Your task to perform on an android device: open chrome privacy settings Image 0: 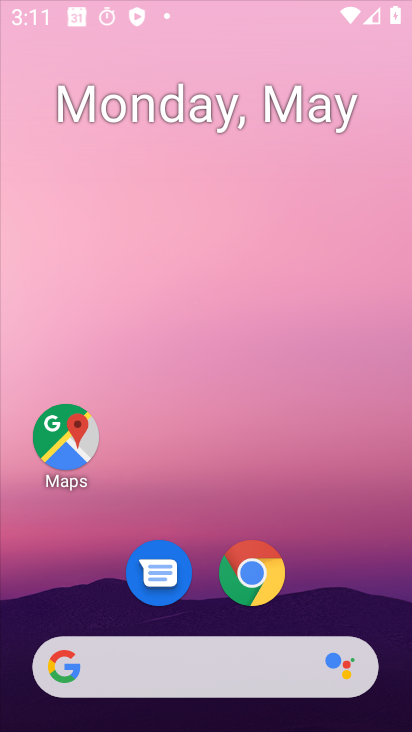
Step 0: drag from (363, 602) to (140, 128)
Your task to perform on an android device: open chrome privacy settings Image 1: 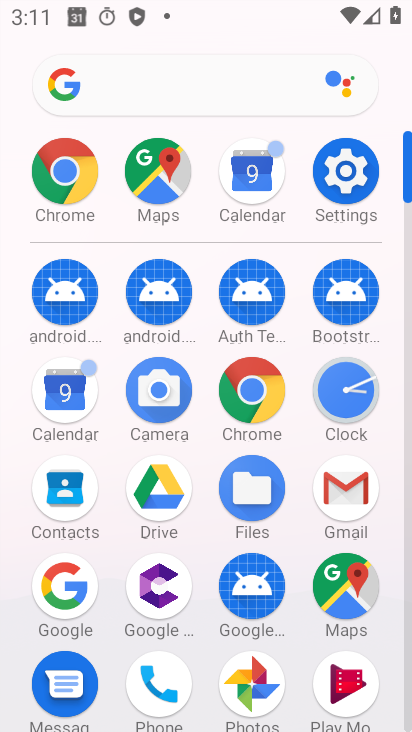
Step 1: click (72, 175)
Your task to perform on an android device: open chrome privacy settings Image 2: 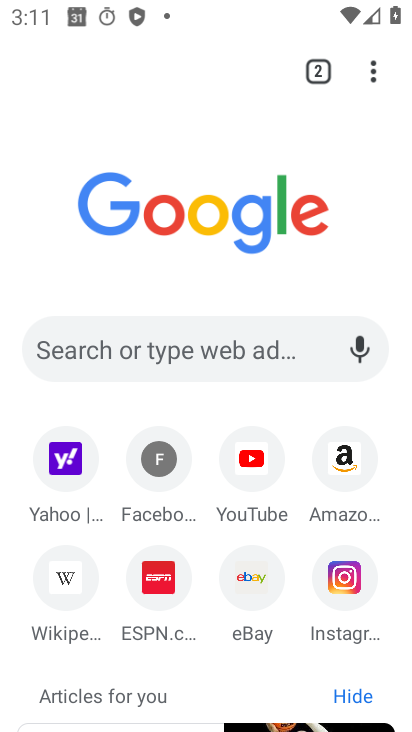
Step 2: click (373, 77)
Your task to perform on an android device: open chrome privacy settings Image 3: 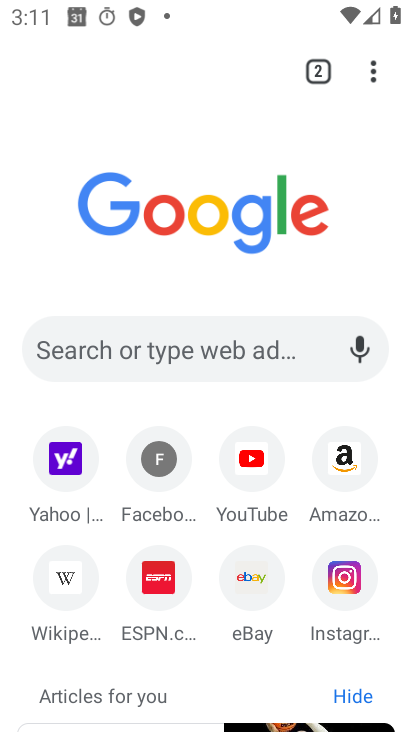
Step 3: click (371, 76)
Your task to perform on an android device: open chrome privacy settings Image 4: 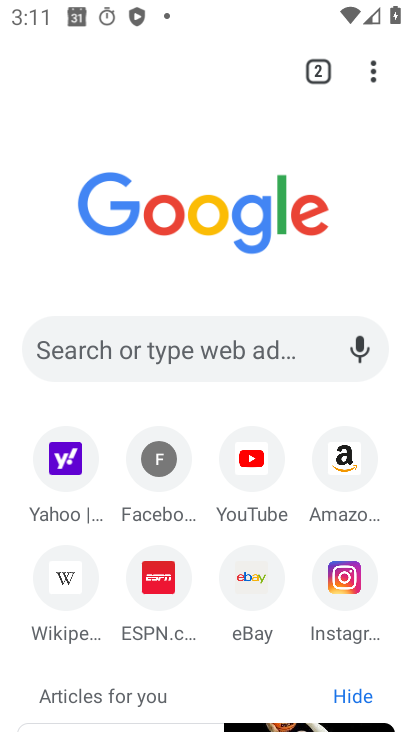
Step 4: drag from (371, 76) to (128, 606)
Your task to perform on an android device: open chrome privacy settings Image 5: 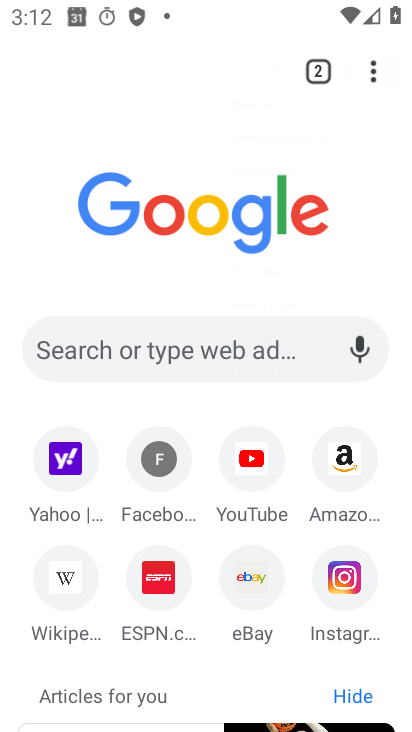
Step 5: click (122, 603)
Your task to perform on an android device: open chrome privacy settings Image 6: 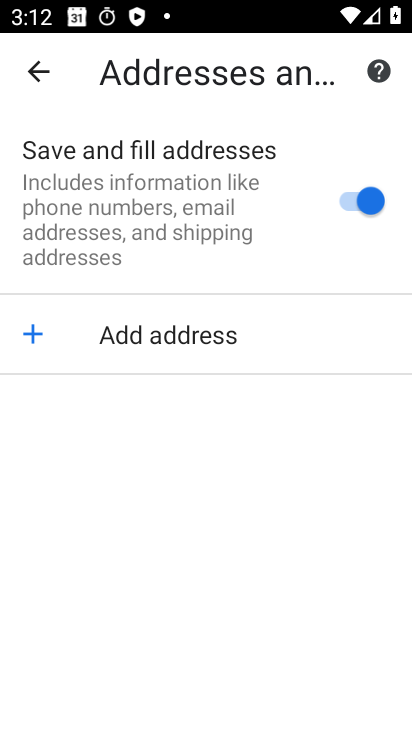
Step 6: click (42, 57)
Your task to perform on an android device: open chrome privacy settings Image 7: 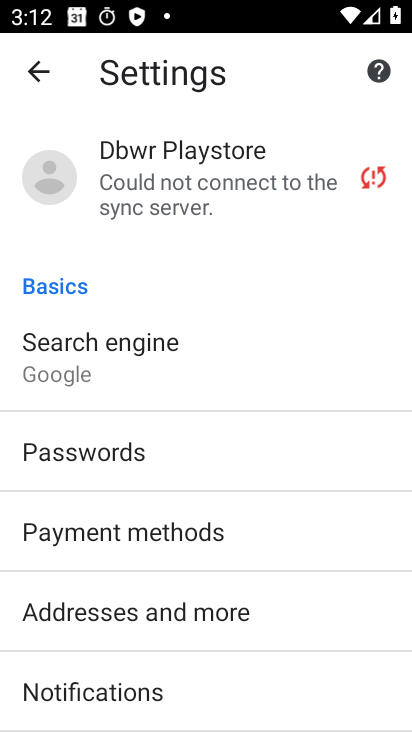
Step 7: drag from (206, 636) to (152, 130)
Your task to perform on an android device: open chrome privacy settings Image 8: 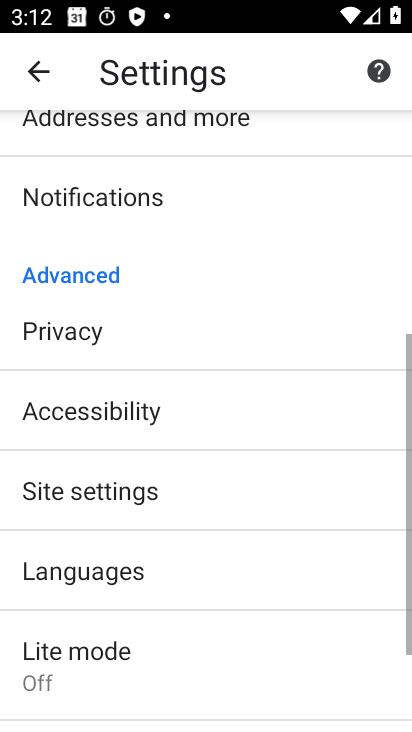
Step 8: drag from (137, 492) to (119, 46)
Your task to perform on an android device: open chrome privacy settings Image 9: 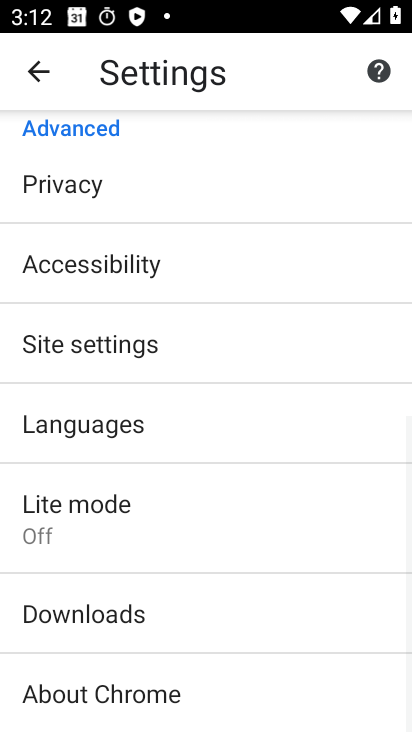
Step 9: click (62, 188)
Your task to perform on an android device: open chrome privacy settings Image 10: 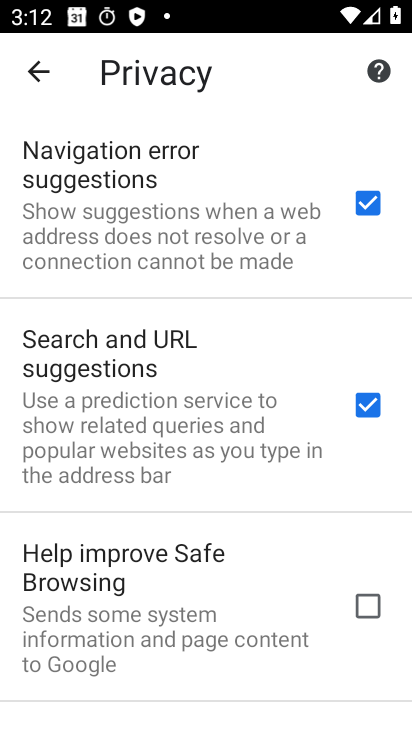
Step 10: task complete